Your task to perform on an android device: Toggle the flashlight Image 0: 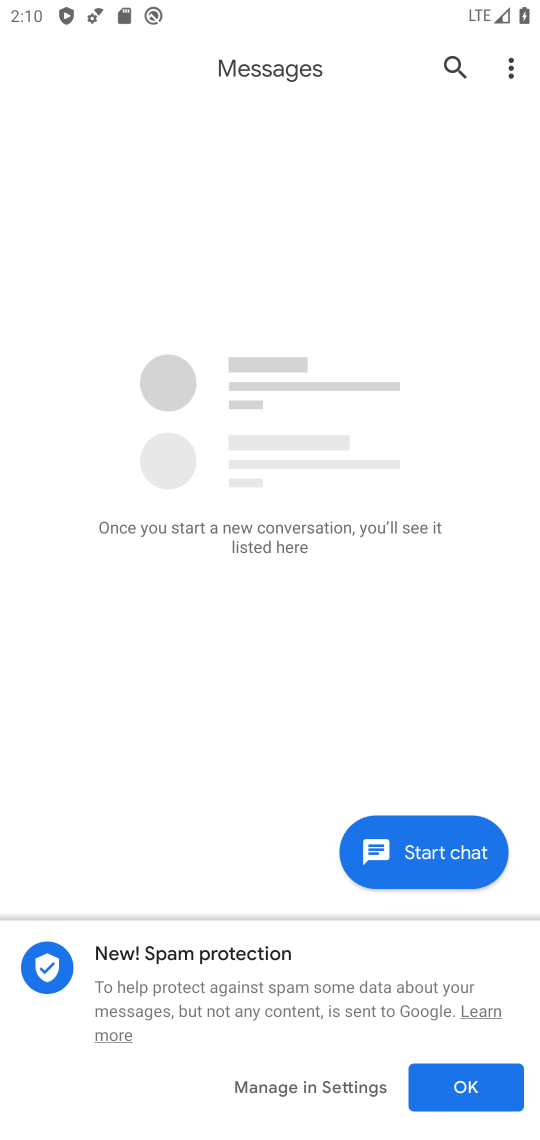
Step 0: press back button
Your task to perform on an android device: Toggle the flashlight Image 1: 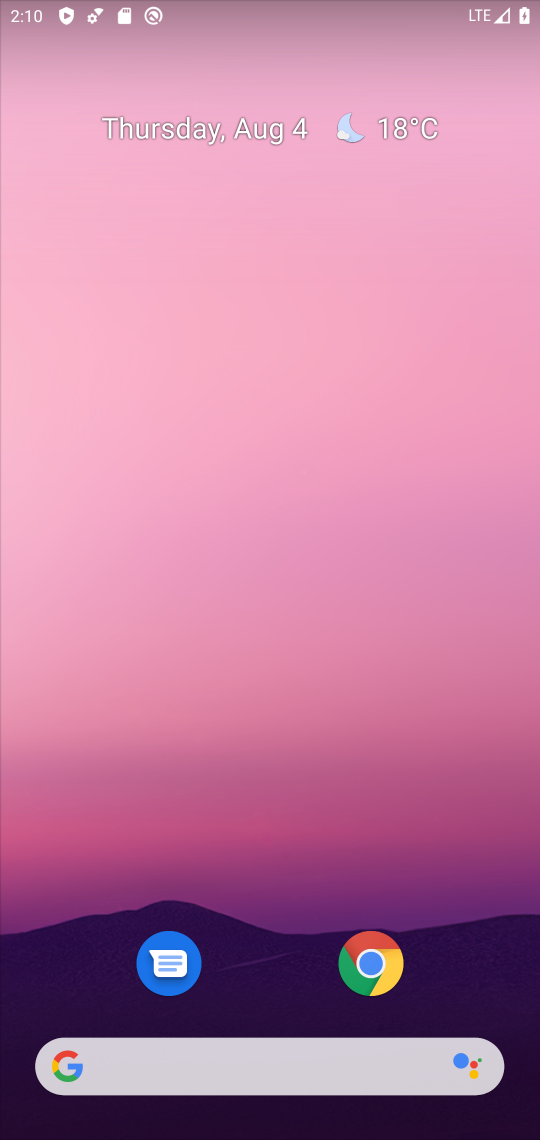
Step 1: task complete